Your task to perform on an android device: check the backup settings in the google photos Image 0: 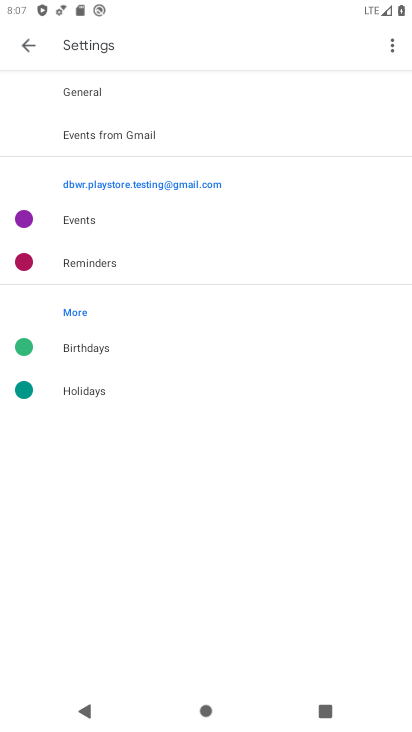
Step 0: press home button
Your task to perform on an android device: check the backup settings in the google photos Image 1: 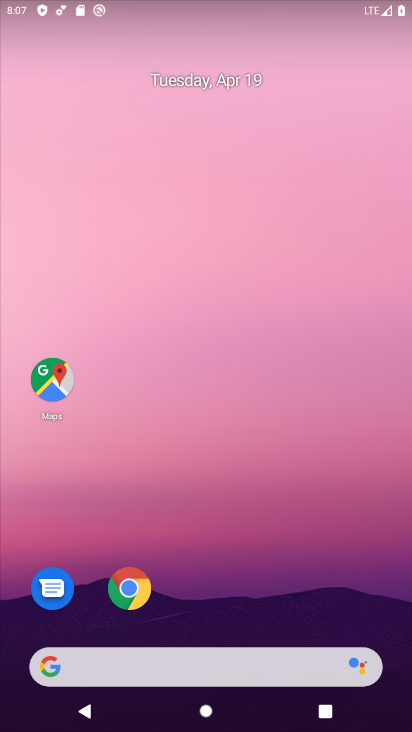
Step 1: drag from (209, 608) to (236, 25)
Your task to perform on an android device: check the backup settings in the google photos Image 2: 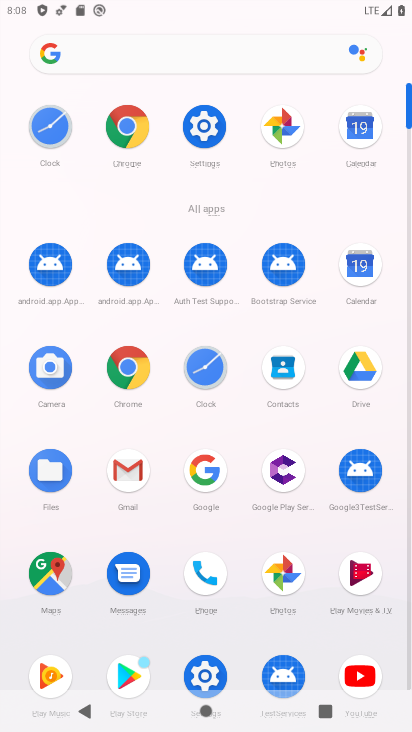
Step 2: click (279, 570)
Your task to perform on an android device: check the backup settings in the google photos Image 3: 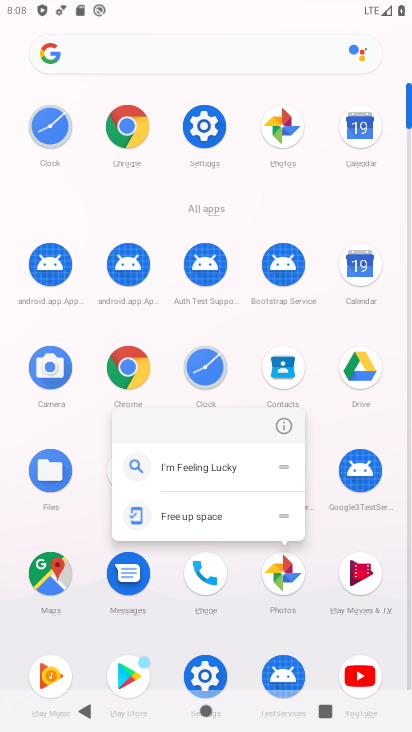
Step 3: click (282, 570)
Your task to perform on an android device: check the backup settings in the google photos Image 4: 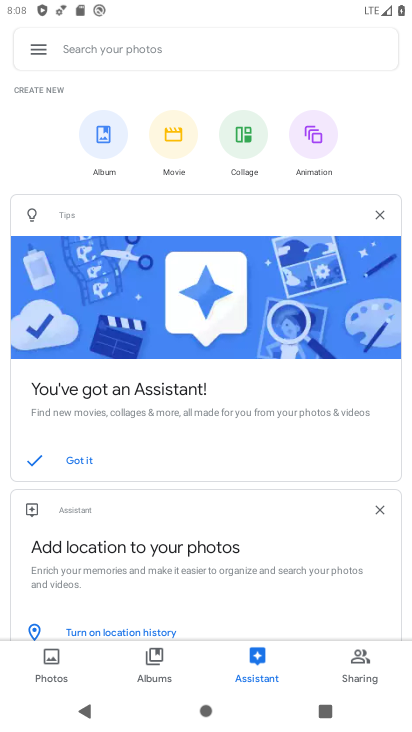
Step 4: click (33, 47)
Your task to perform on an android device: check the backup settings in the google photos Image 5: 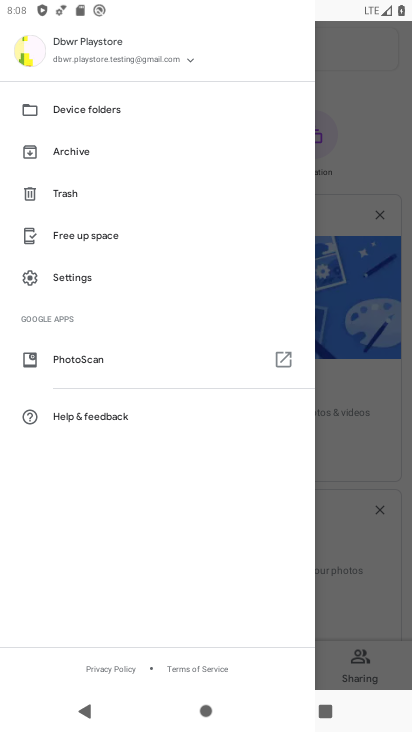
Step 5: click (77, 272)
Your task to perform on an android device: check the backup settings in the google photos Image 6: 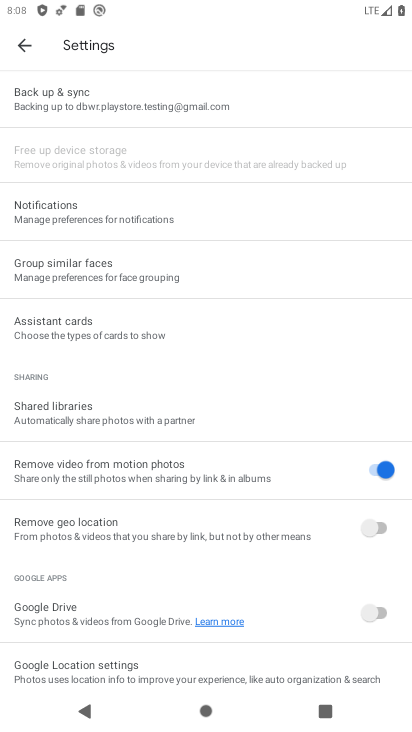
Step 6: click (88, 105)
Your task to perform on an android device: check the backup settings in the google photos Image 7: 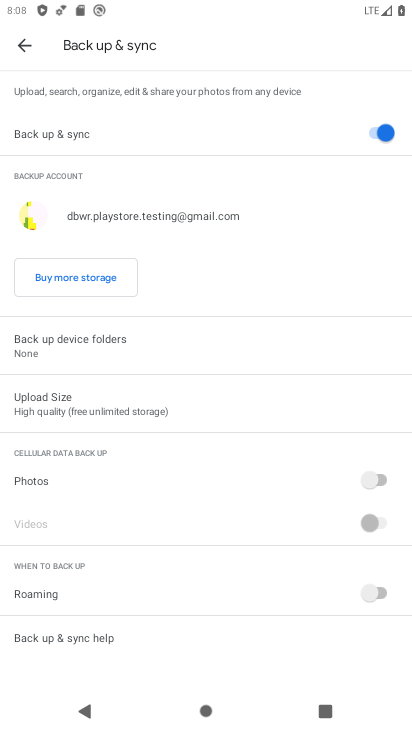
Step 7: task complete